Your task to perform on an android device: toggle priority inbox in the gmail app Image 0: 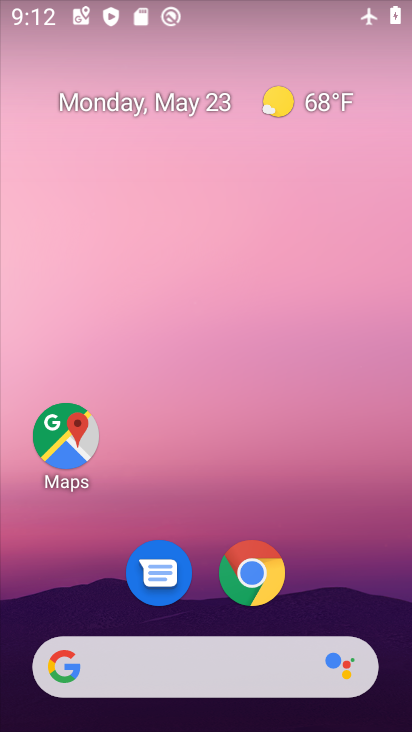
Step 0: drag from (284, 627) to (331, 146)
Your task to perform on an android device: toggle priority inbox in the gmail app Image 1: 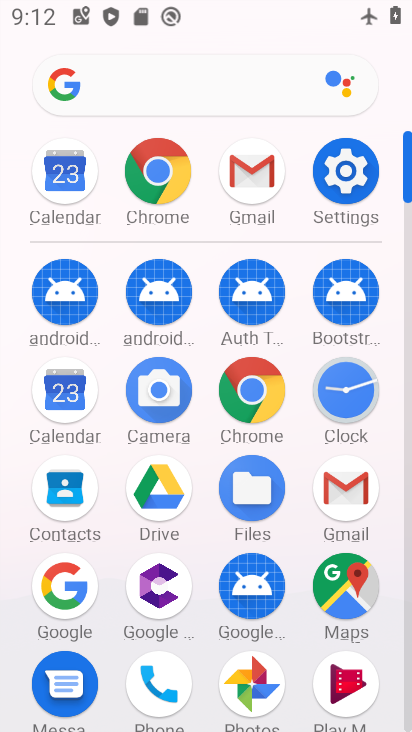
Step 1: click (351, 505)
Your task to perform on an android device: toggle priority inbox in the gmail app Image 2: 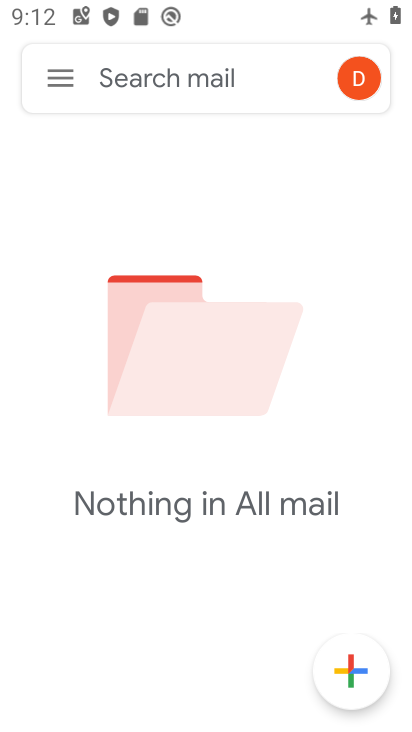
Step 2: click (41, 78)
Your task to perform on an android device: toggle priority inbox in the gmail app Image 3: 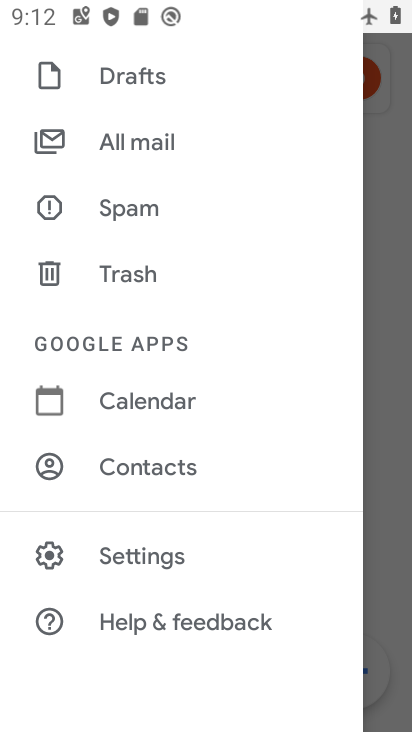
Step 3: click (131, 565)
Your task to perform on an android device: toggle priority inbox in the gmail app Image 4: 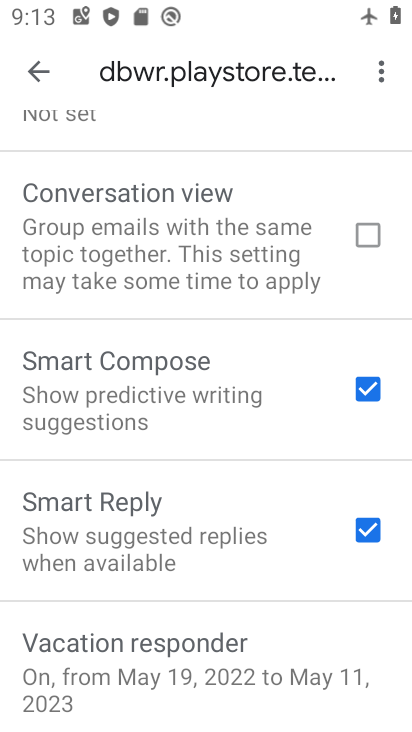
Step 4: drag from (131, 567) to (200, 395)
Your task to perform on an android device: toggle priority inbox in the gmail app Image 5: 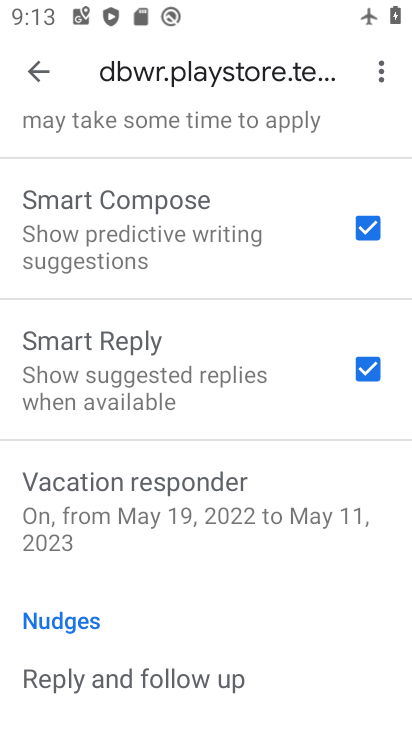
Step 5: drag from (190, 221) to (196, 710)
Your task to perform on an android device: toggle priority inbox in the gmail app Image 6: 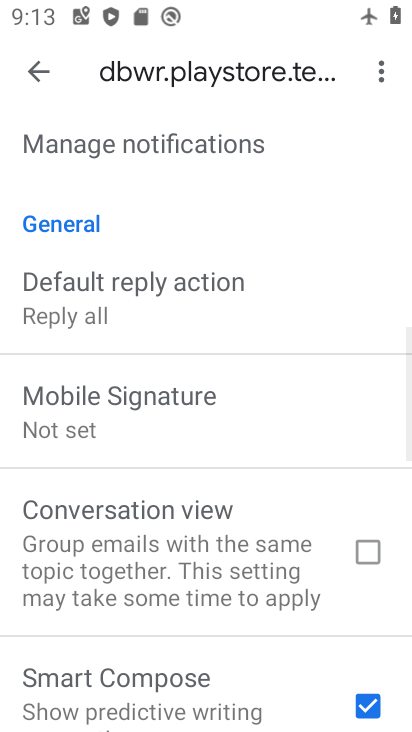
Step 6: drag from (198, 338) to (157, 723)
Your task to perform on an android device: toggle priority inbox in the gmail app Image 7: 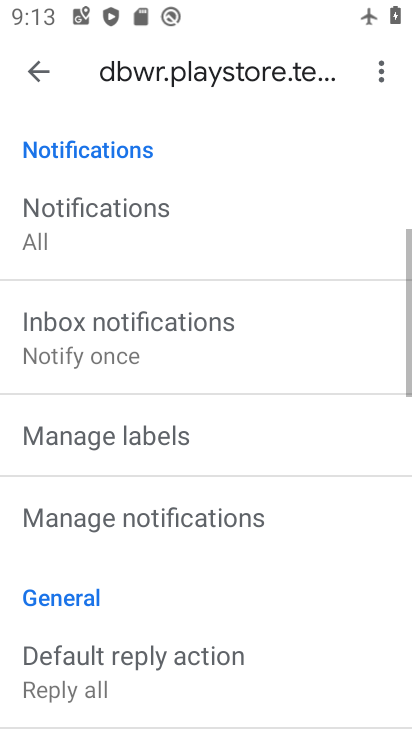
Step 7: drag from (179, 332) to (181, 712)
Your task to perform on an android device: toggle priority inbox in the gmail app Image 8: 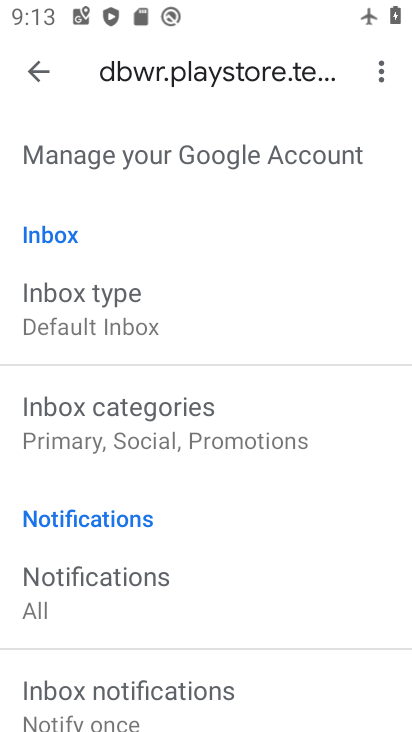
Step 8: drag from (179, 301) to (182, 617)
Your task to perform on an android device: toggle priority inbox in the gmail app Image 9: 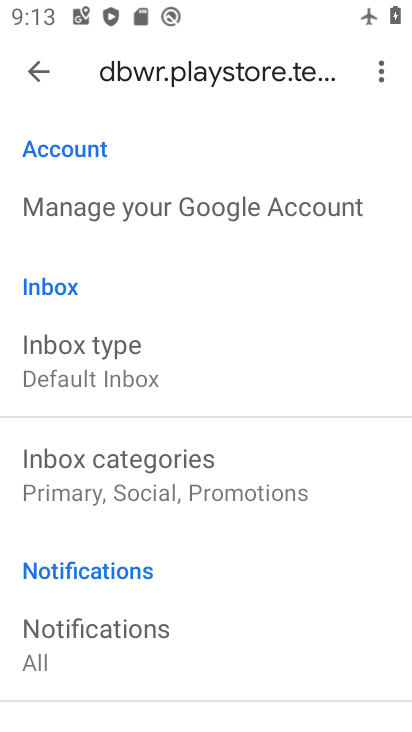
Step 9: click (152, 370)
Your task to perform on an android device: toggle priority inbox in the gmail app Image 10: 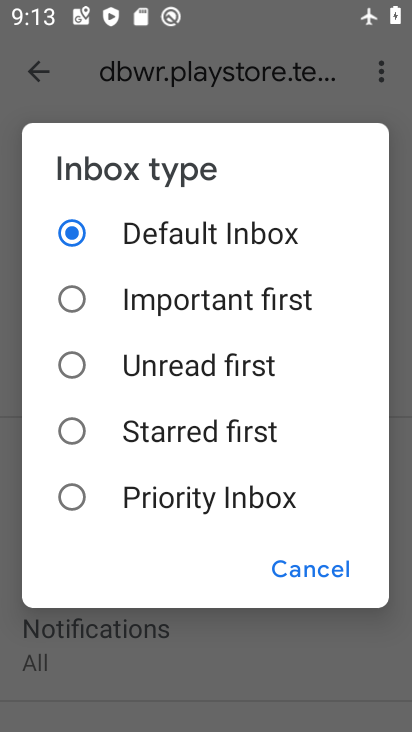
Step 10: click (130, 536)
Your task to perform on an android device: toggle priority inbox in the gmail app Image 11: 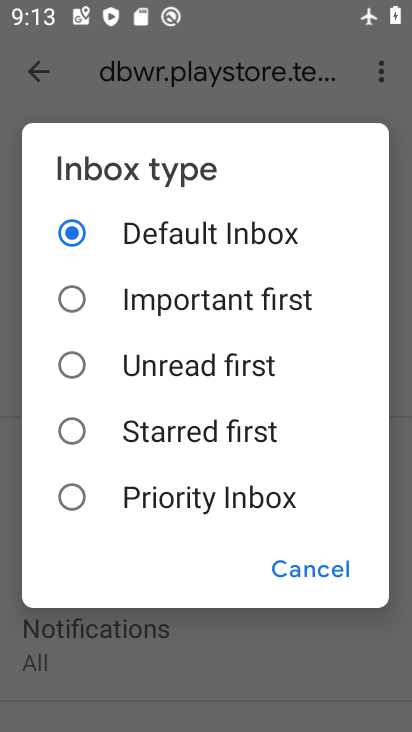
Step 11: click (94, 498)
Your task to perform on an android device: toggle priority inbox in the gmail app Image 12: 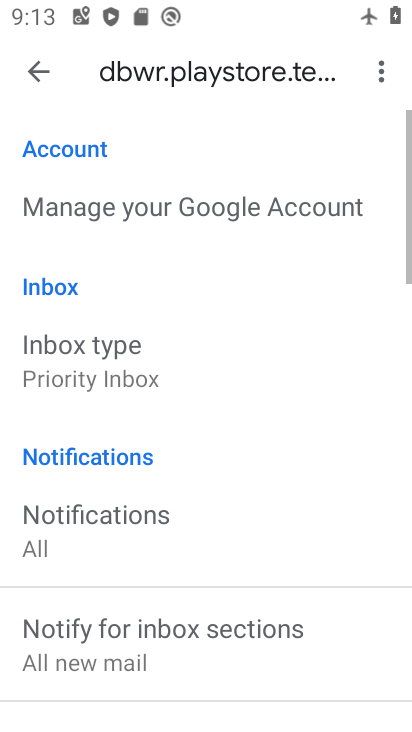
Step 12: task complete